Your task to perform on an android device: Open Android settings Image 0: 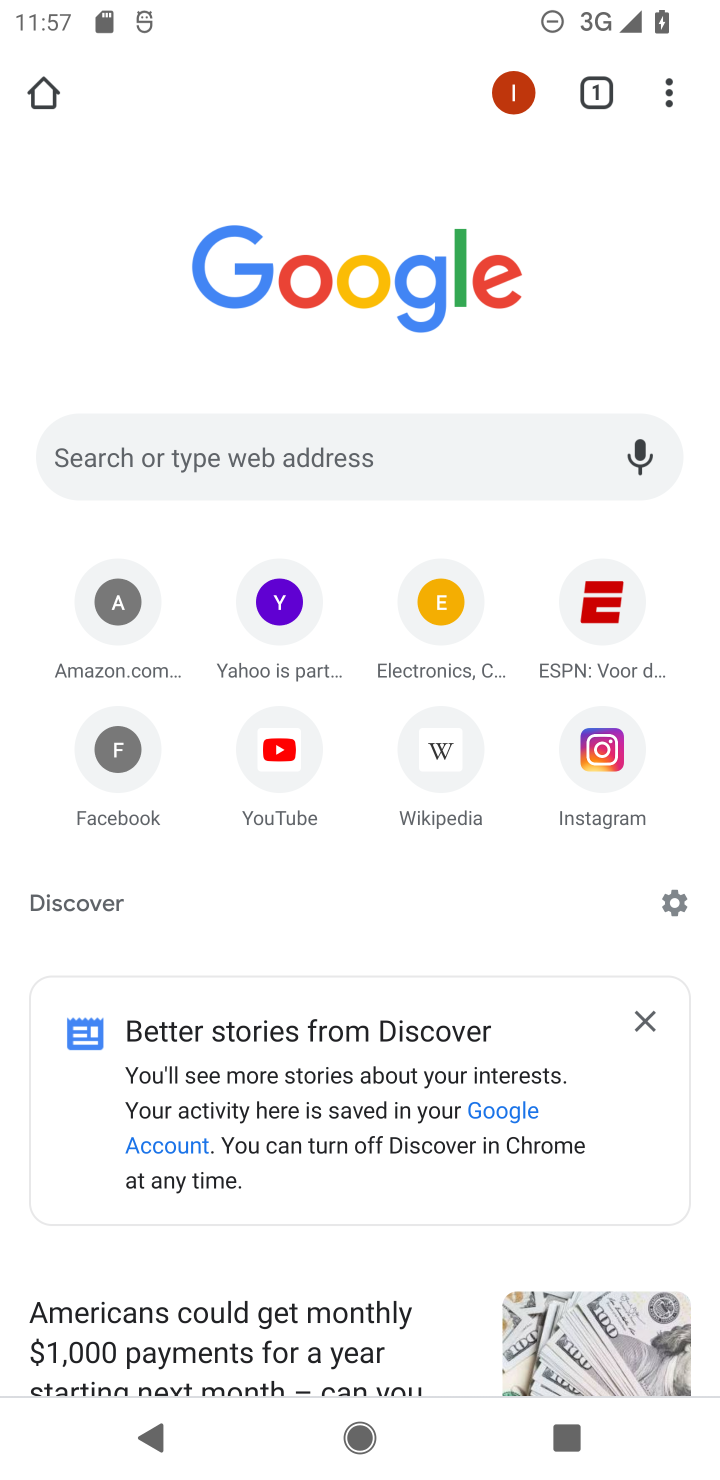
Step 0: press home button
Your task to perform on an android device: Open Android settings Image 1: 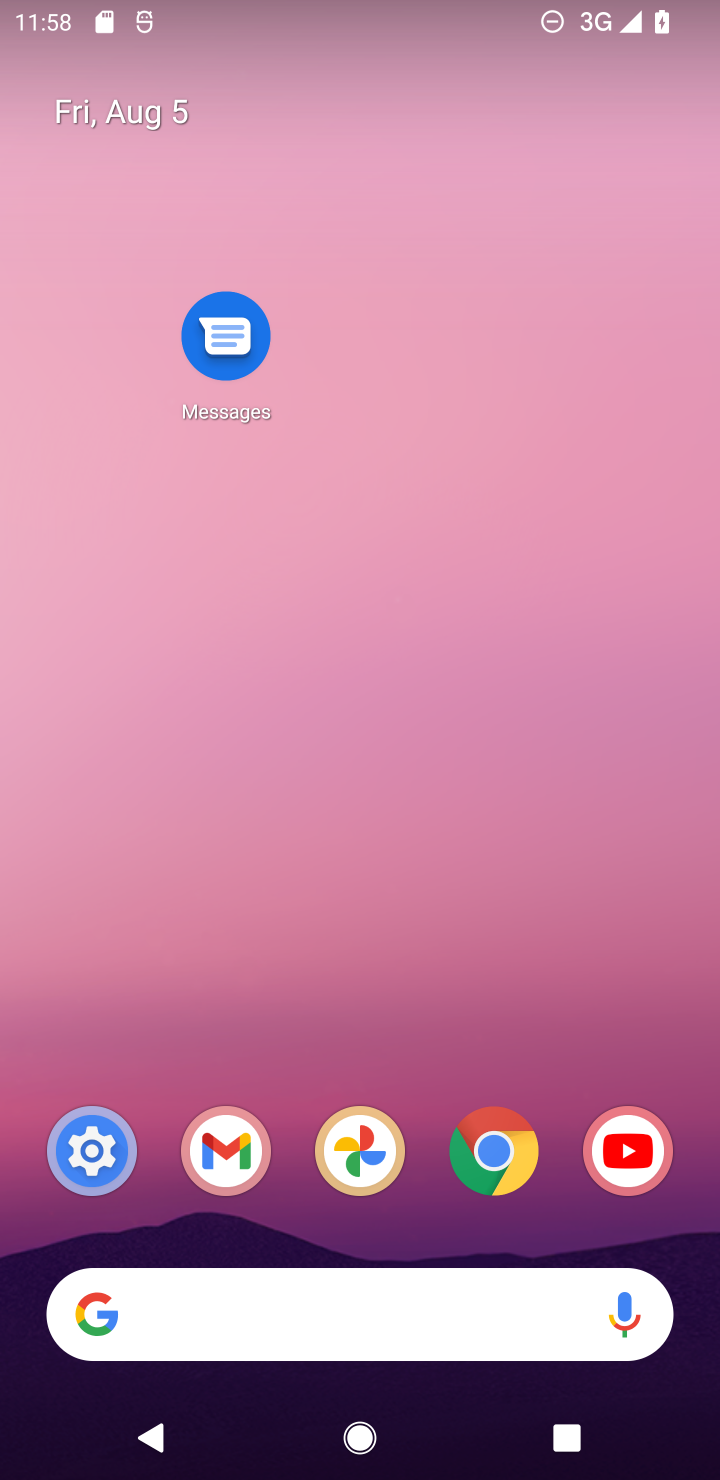
Step 1: click (83, 1160)
Your task to perform on an android device: Open Android settings Image 2: 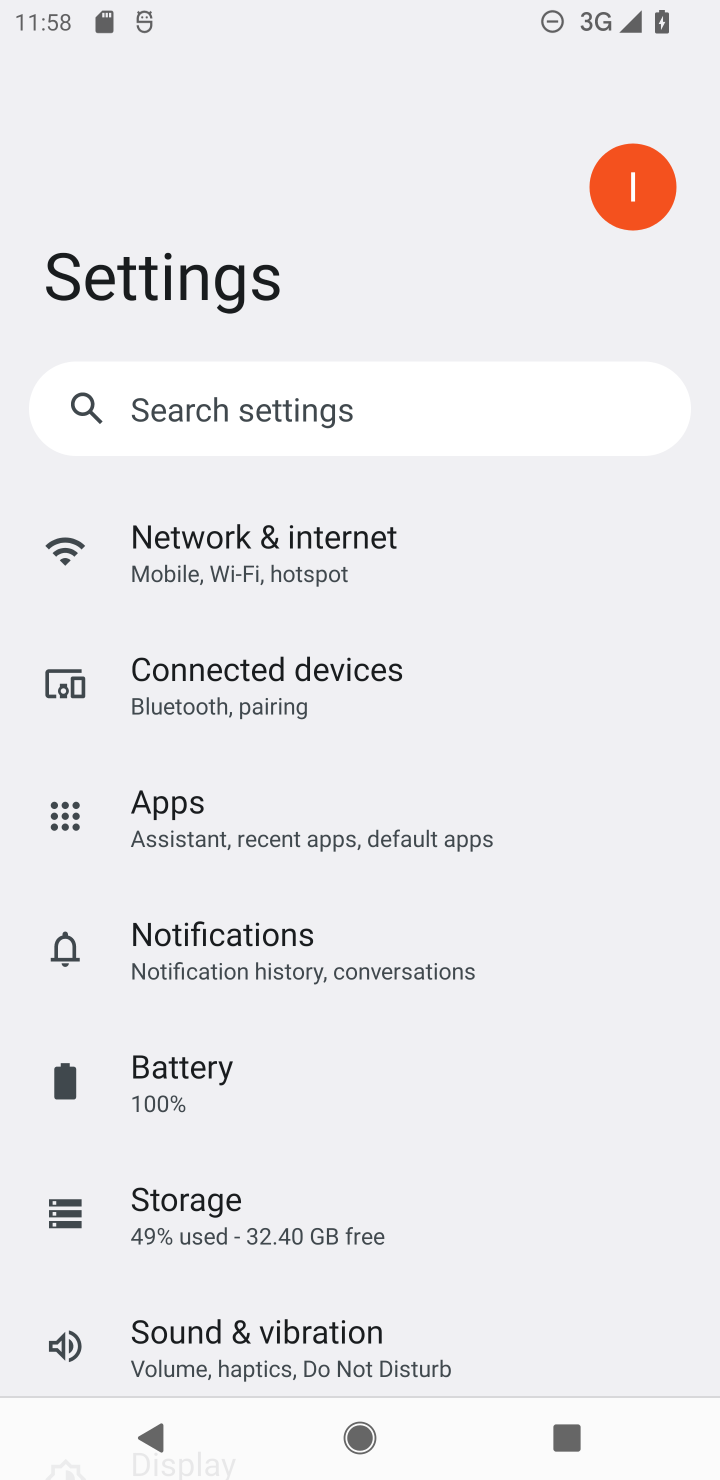
Step 2: drag from (283, 1258) to (306, 570)
Your task to perform on an android device: Open Android settings Image 3: 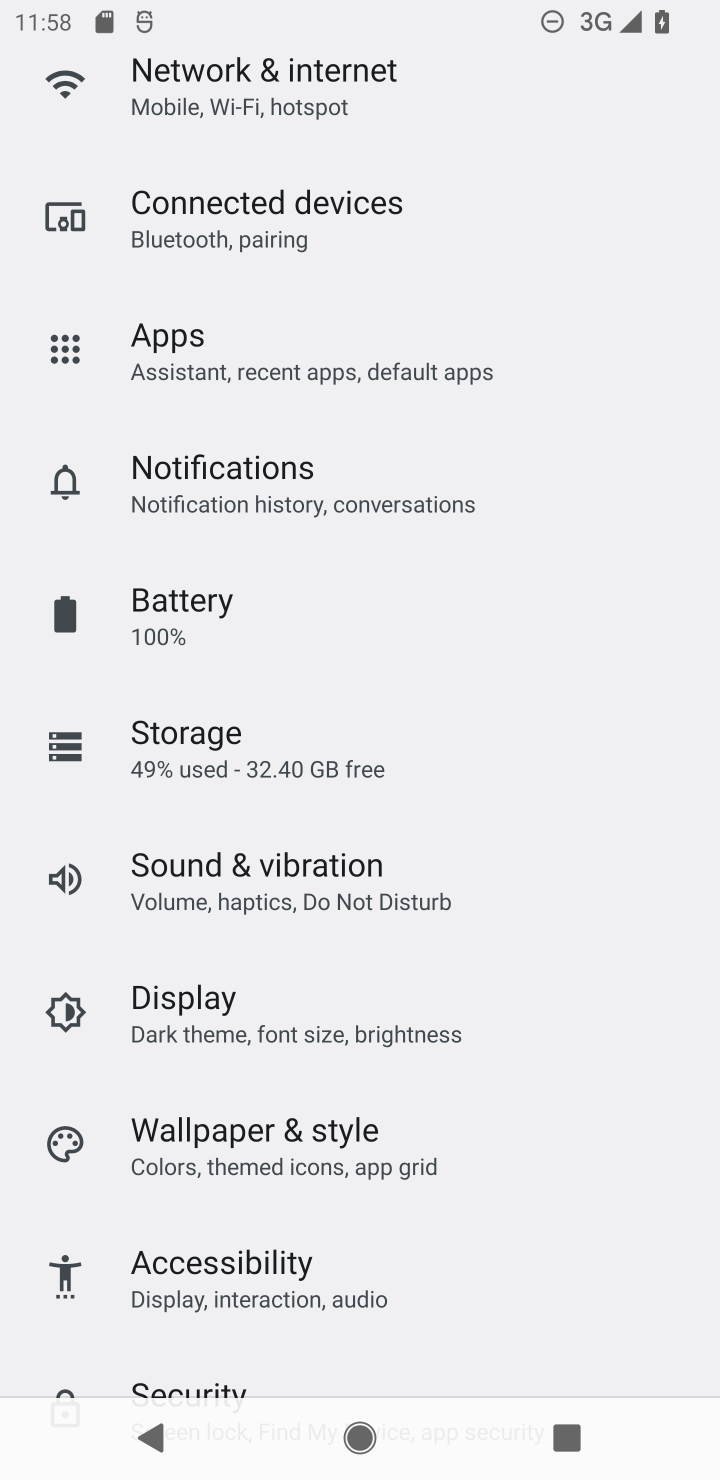
Step 3: drag from (312, 1251) to (320, 684)
Your task to perform on an android device: Open Android settings Image 4: 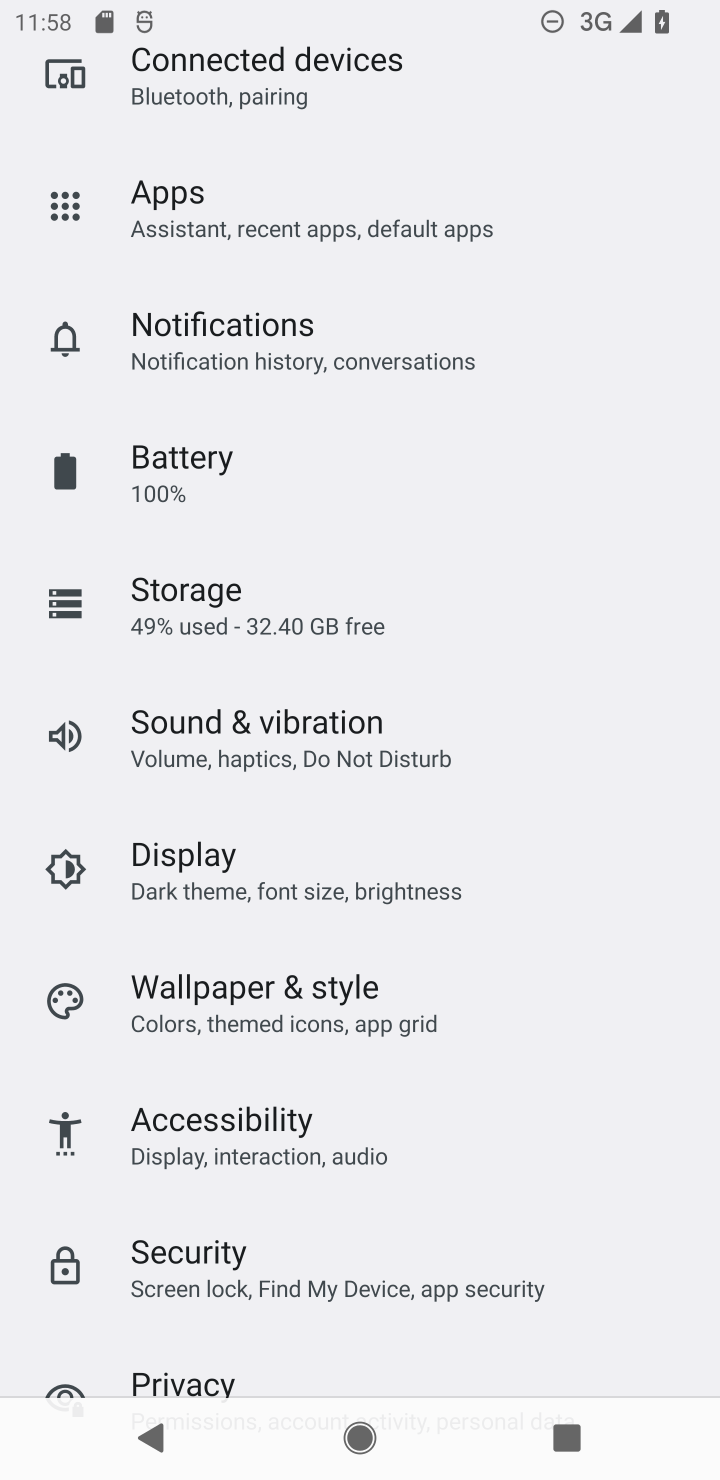
Step 4: drag from (222, 1197) to (259, 591)
Your task to perform on an android device: Open Android settings Image 5: 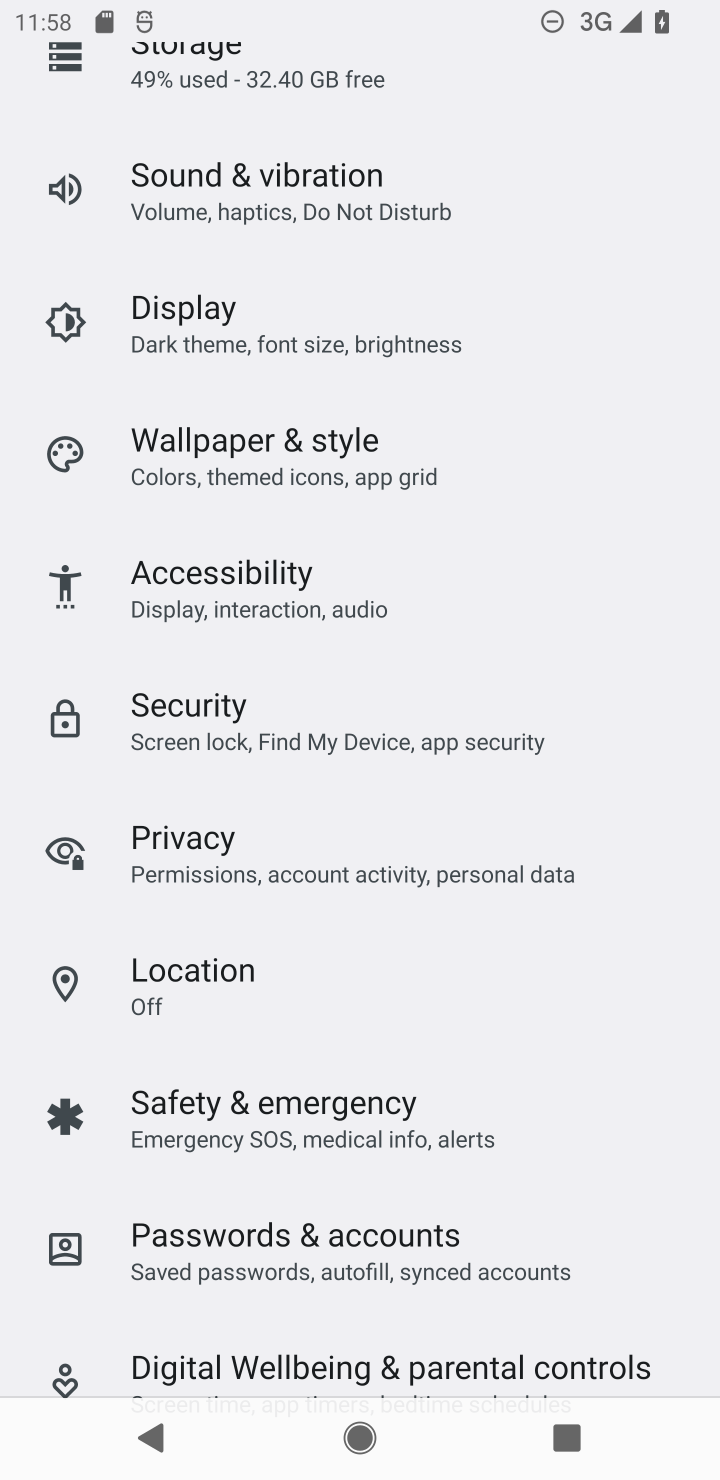
Step 5: click (296, 457)
Your task to perform on an android device: Open Android settings Image 6: 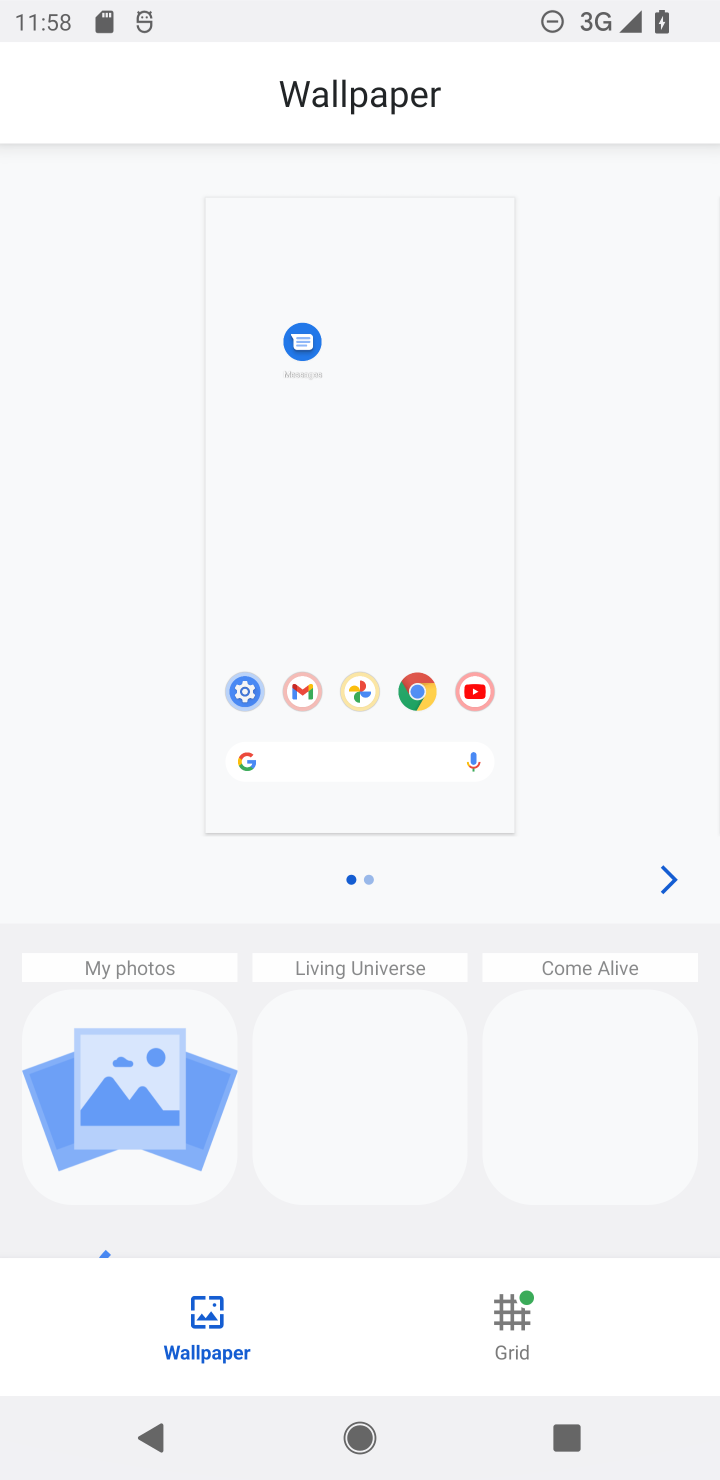
Step 6: press back button
Your task to perform on an android device: Open Android settings Image 7: 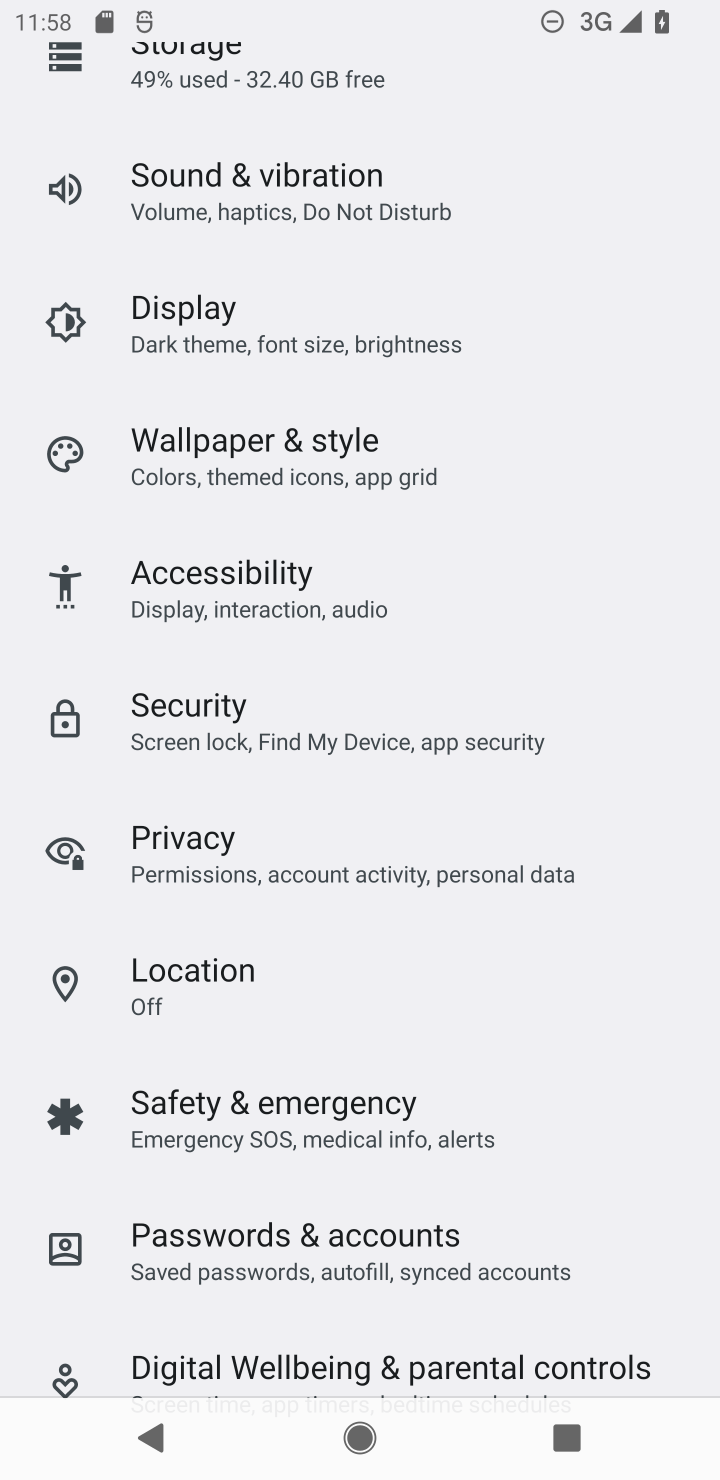
Step 7: click (326, 757)
Your task to perform on an android device: Open Android settings Image 8: 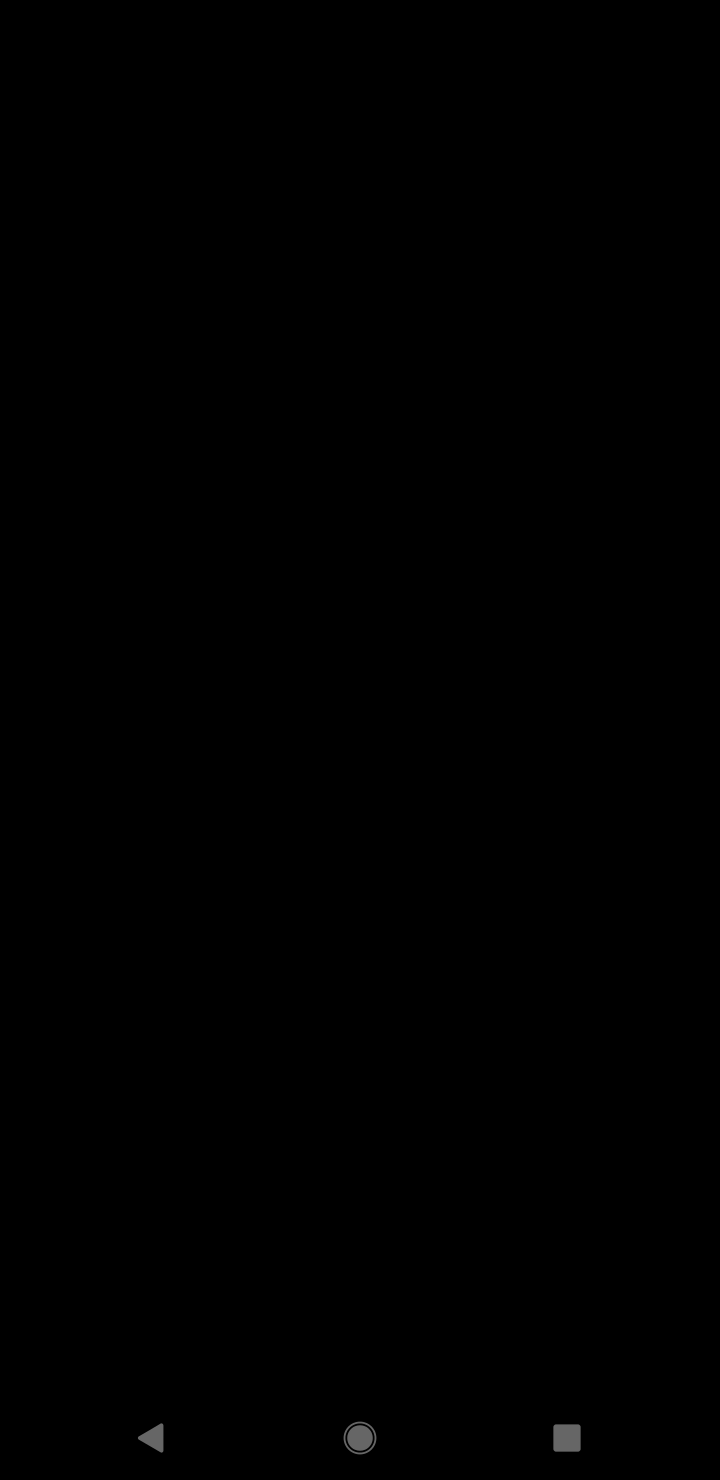
Step 8: press back button
Your task to perform on an android device: Open Android settings Image 9: 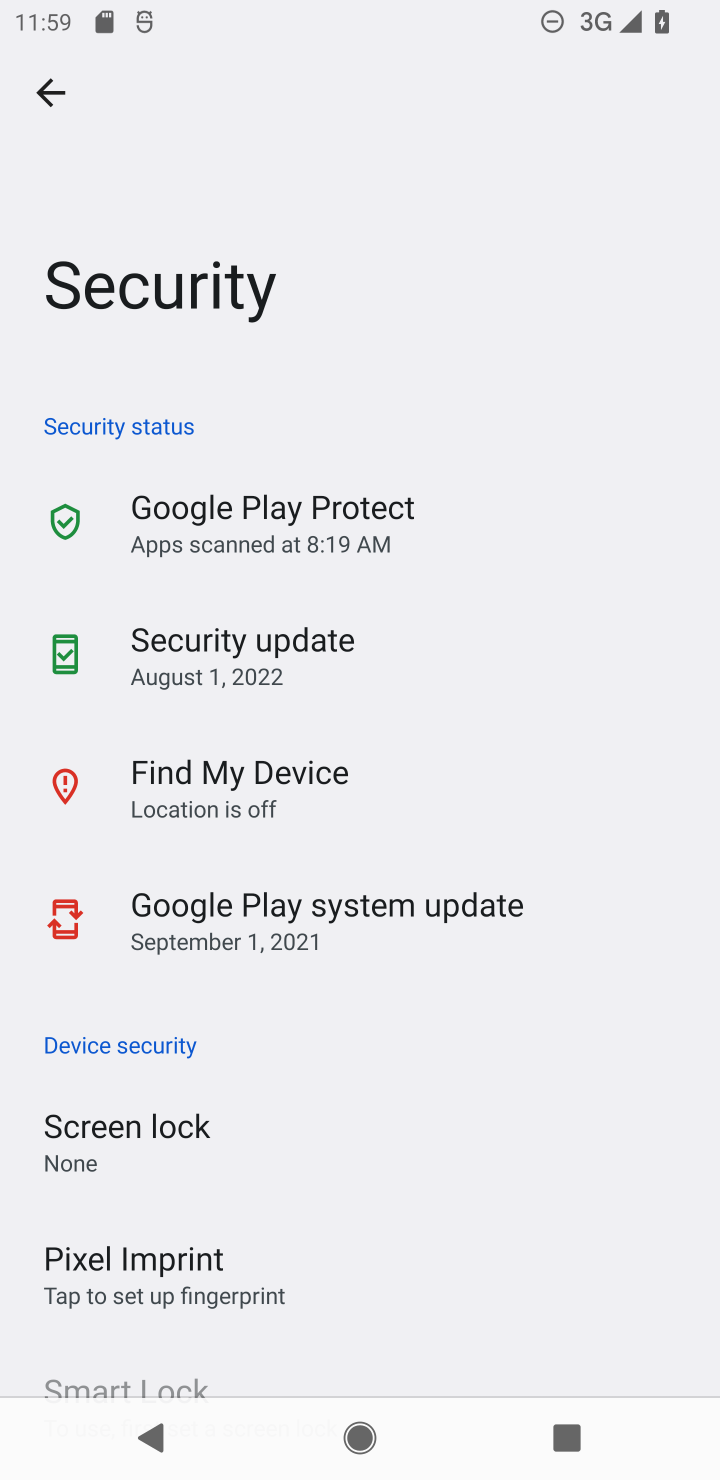
Step 9: press back button
Your task to perform on an android device: Open Android settings Image 10: 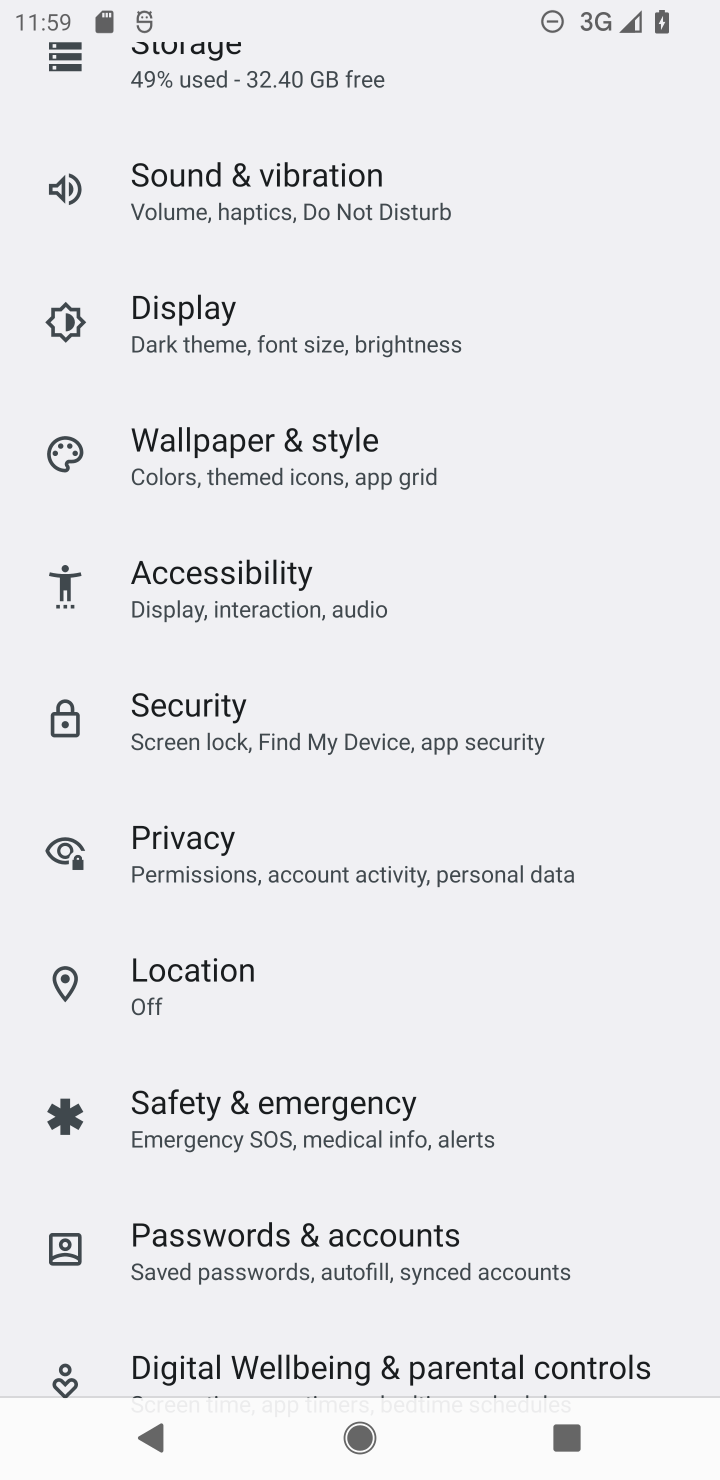
Step 10: drag from (355, 1006) to (338, 567)
Your task to perform on an android device: Open Android settings Image 11: 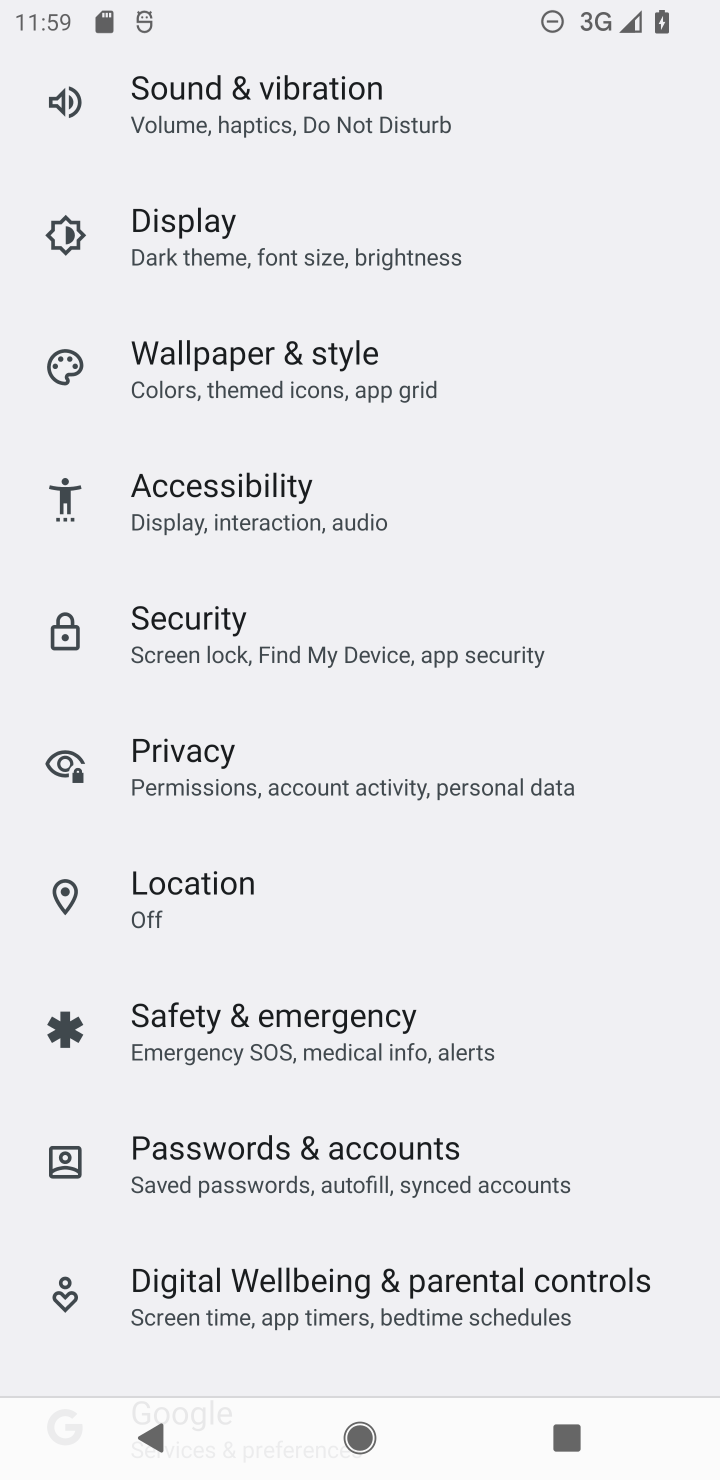
Step 11: drag from (330, 1160) to (341, 549)
Your task to perform on an android device: Open Android settings Image 12: 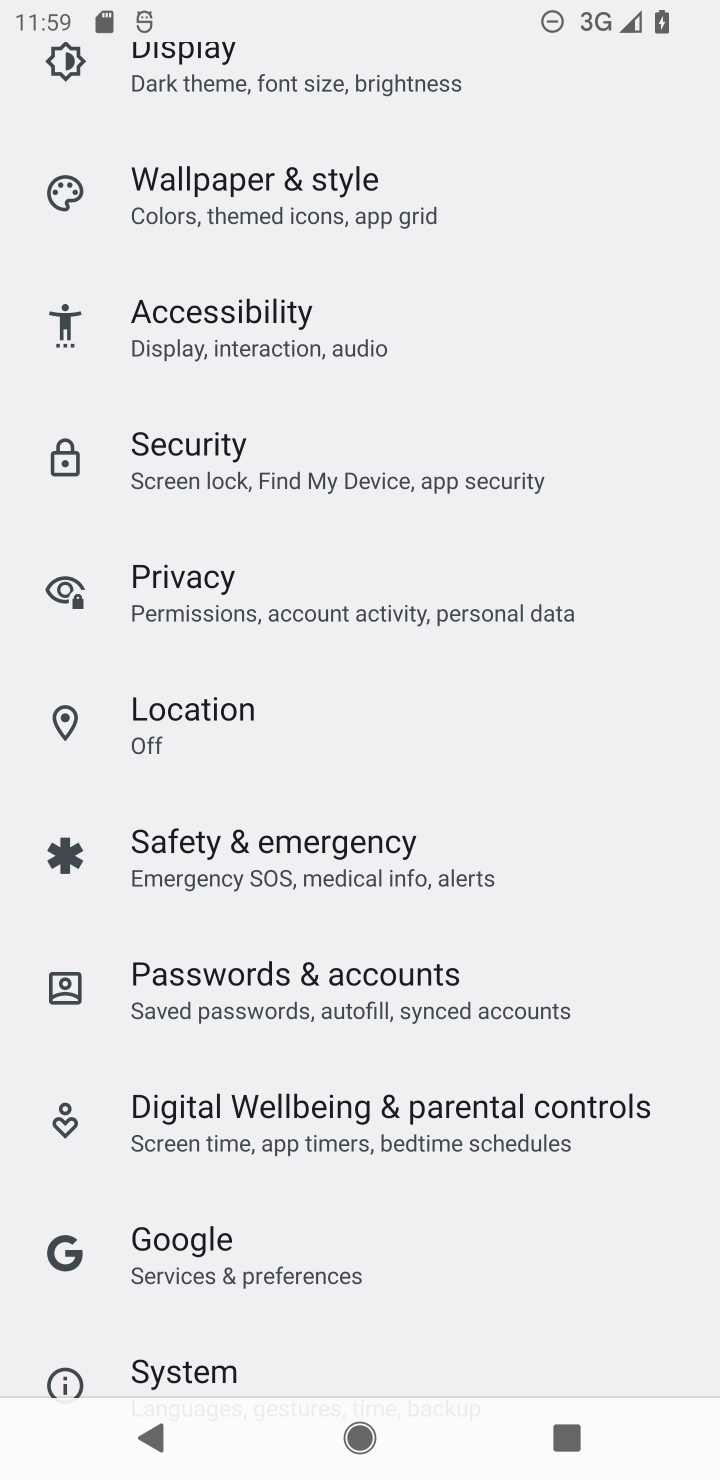
Step 12: drag from (312, 864) to (321, 637)
Your task to perform on an android device: Open Android settings Image 13: 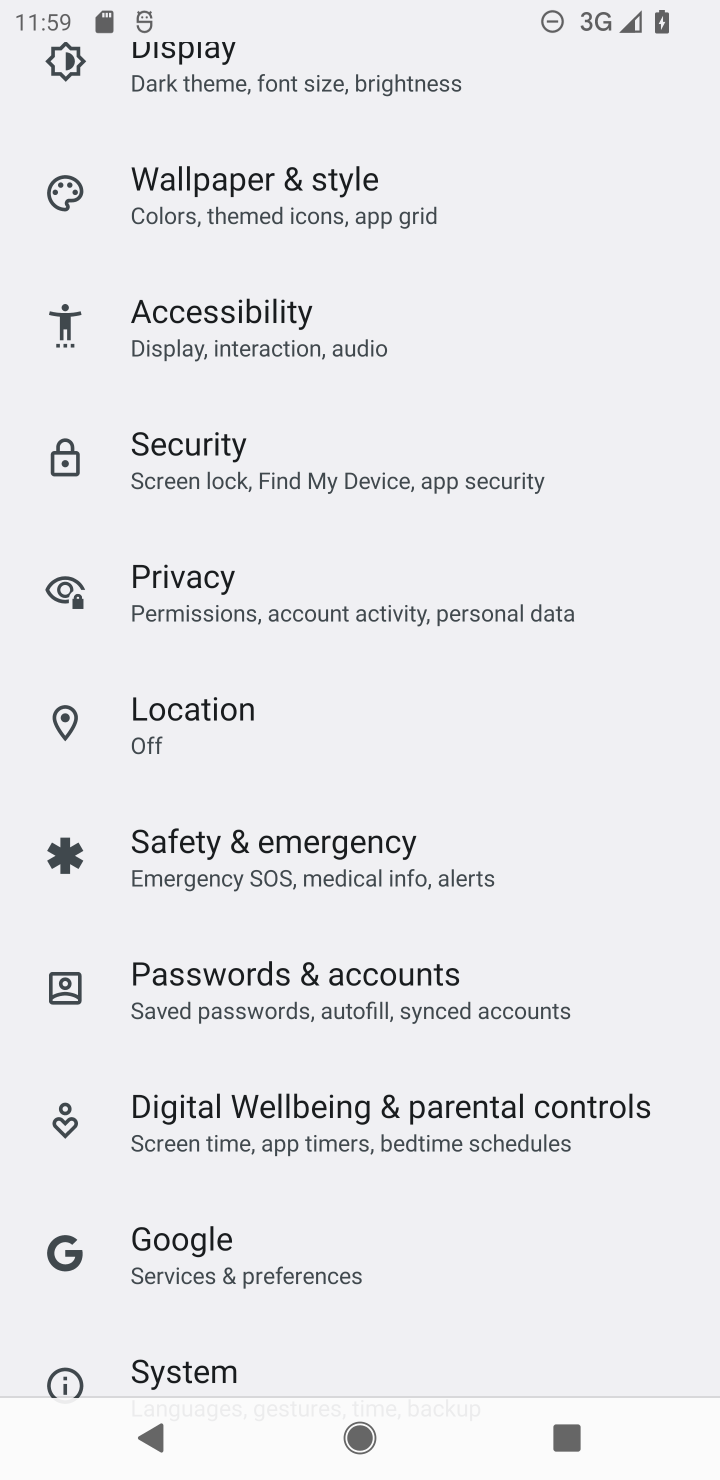
Step 13: drag from (349, 1082) to (424, 577)
Your task to perform on an android device: Open Android settings Image 14: 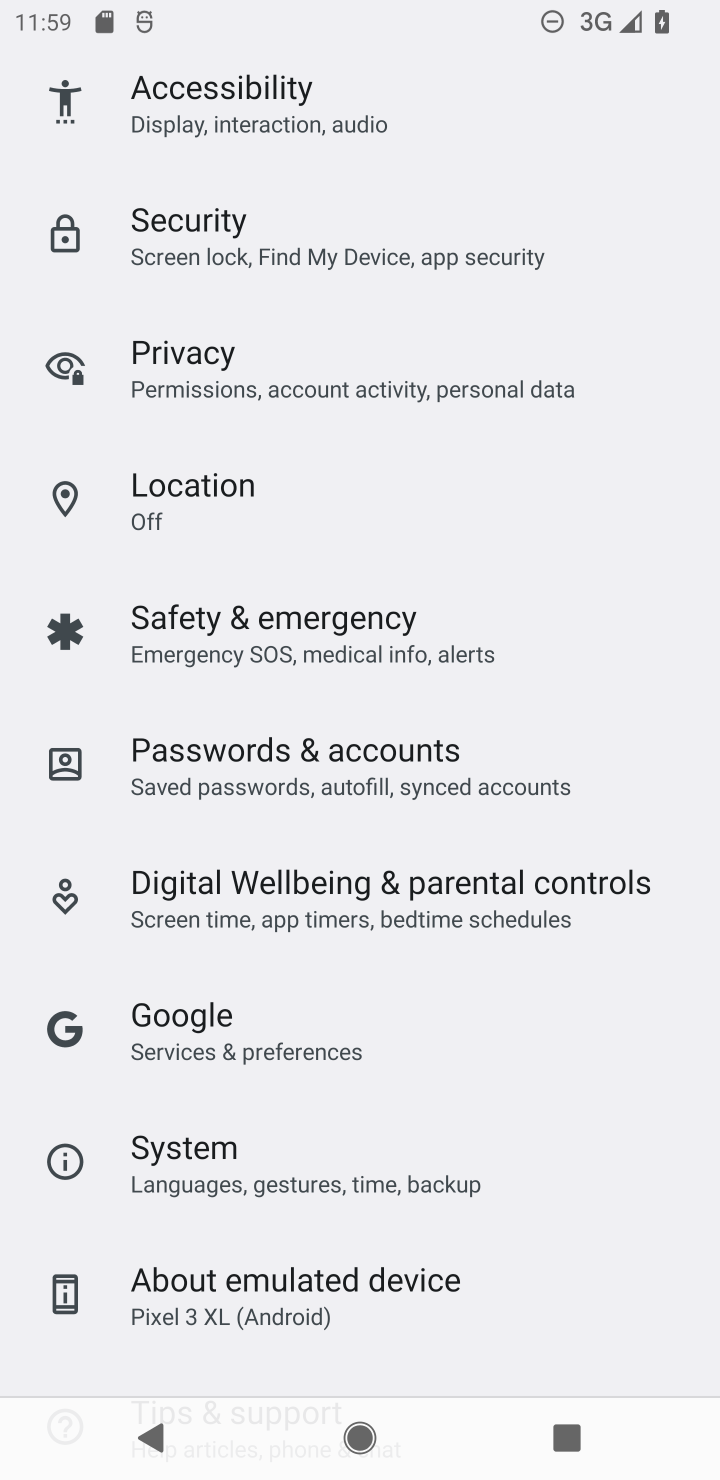
Step 14: click (254, 1298)
Your task to perform on an android device: Open Android settings Image 15: 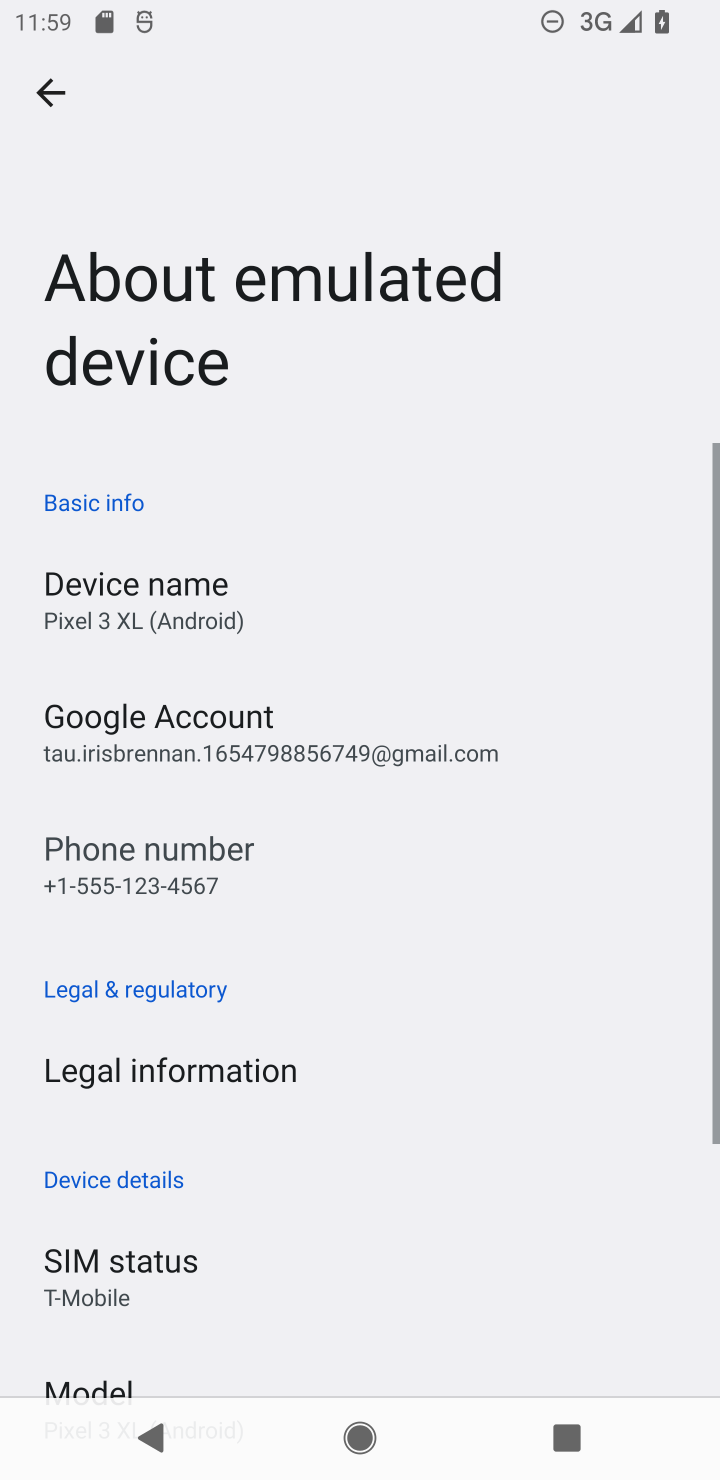
Step 15: drag from (210, 1239) to (250, 873)
Your task to perform on an android device: Open Android settings Image 16: 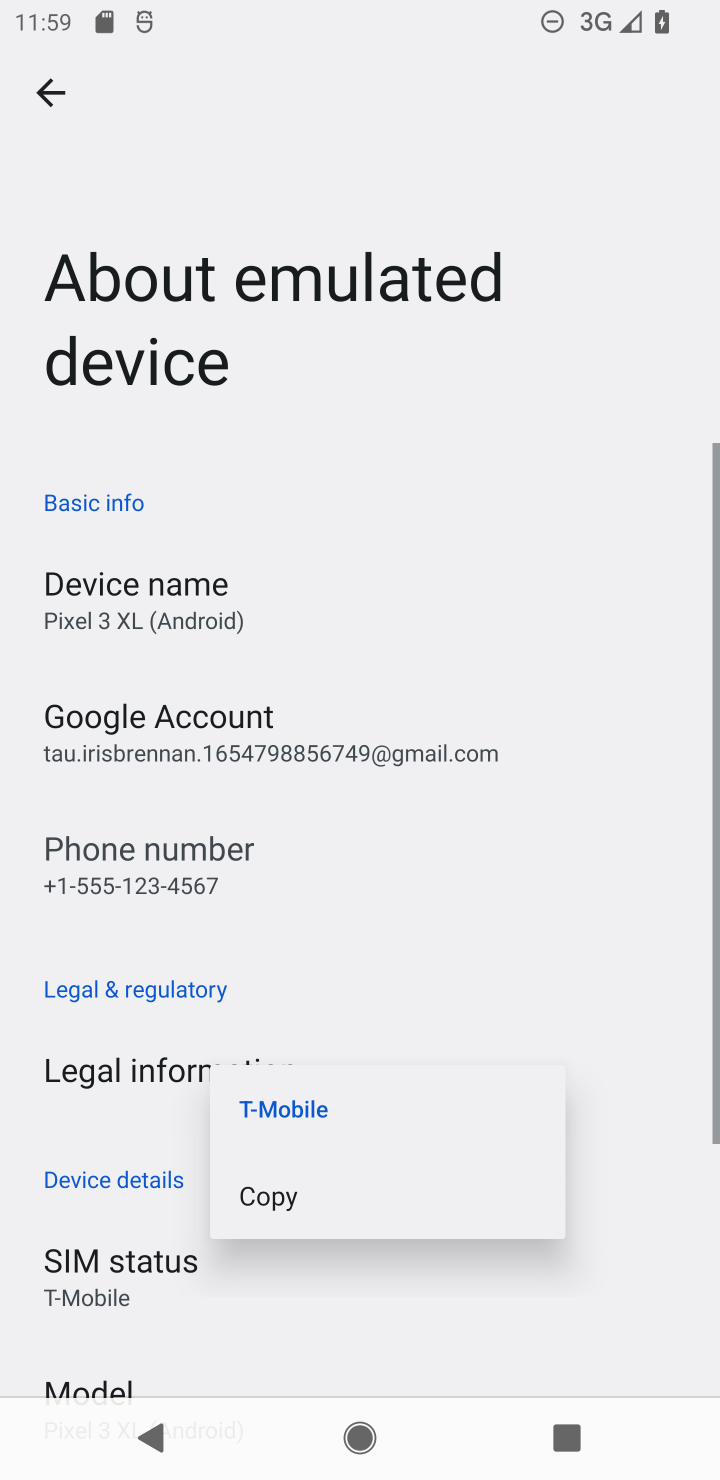
Step 16: click (269, 519)
Your task to perform on an android device: Open Android settings Image 17: 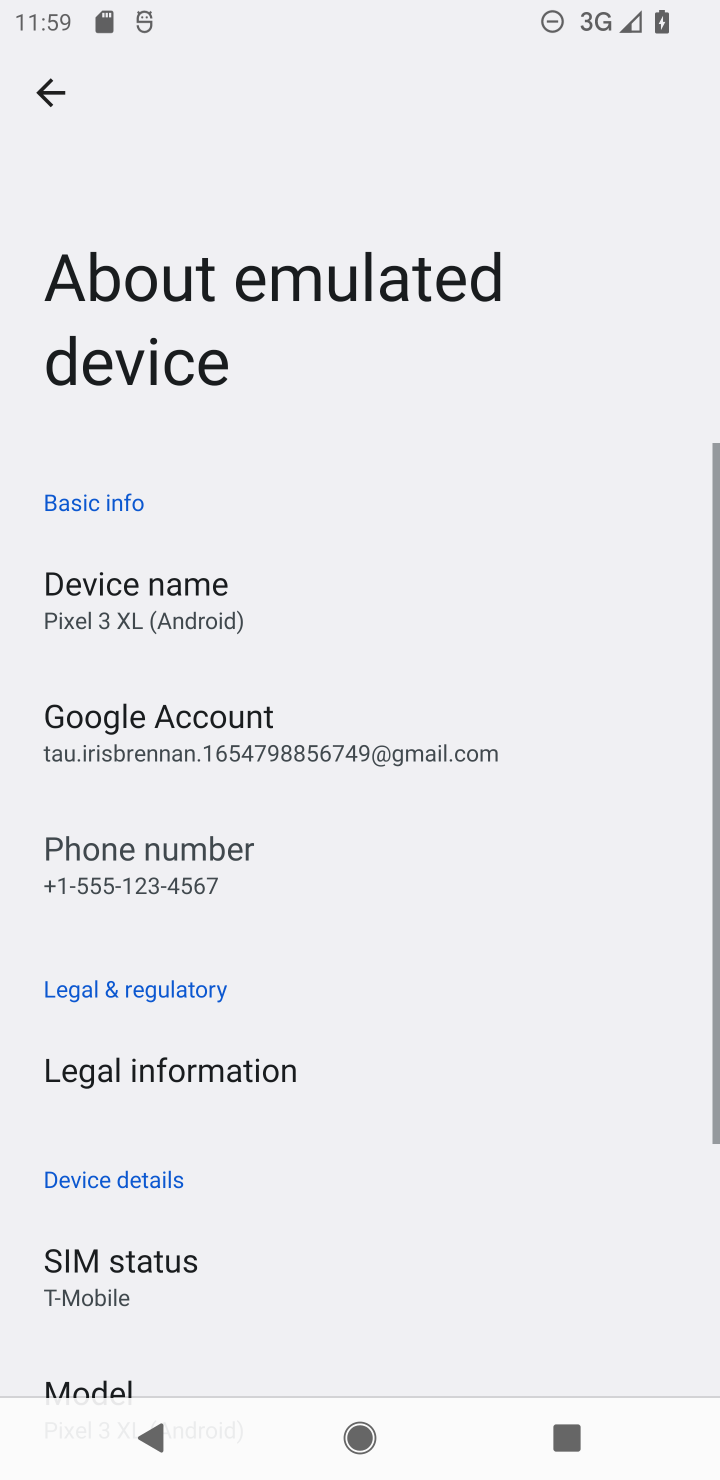
Step 17: drag from (176, 1235) to (428, 169)
Your task to perform on an android device: Open Android settings Image 18: 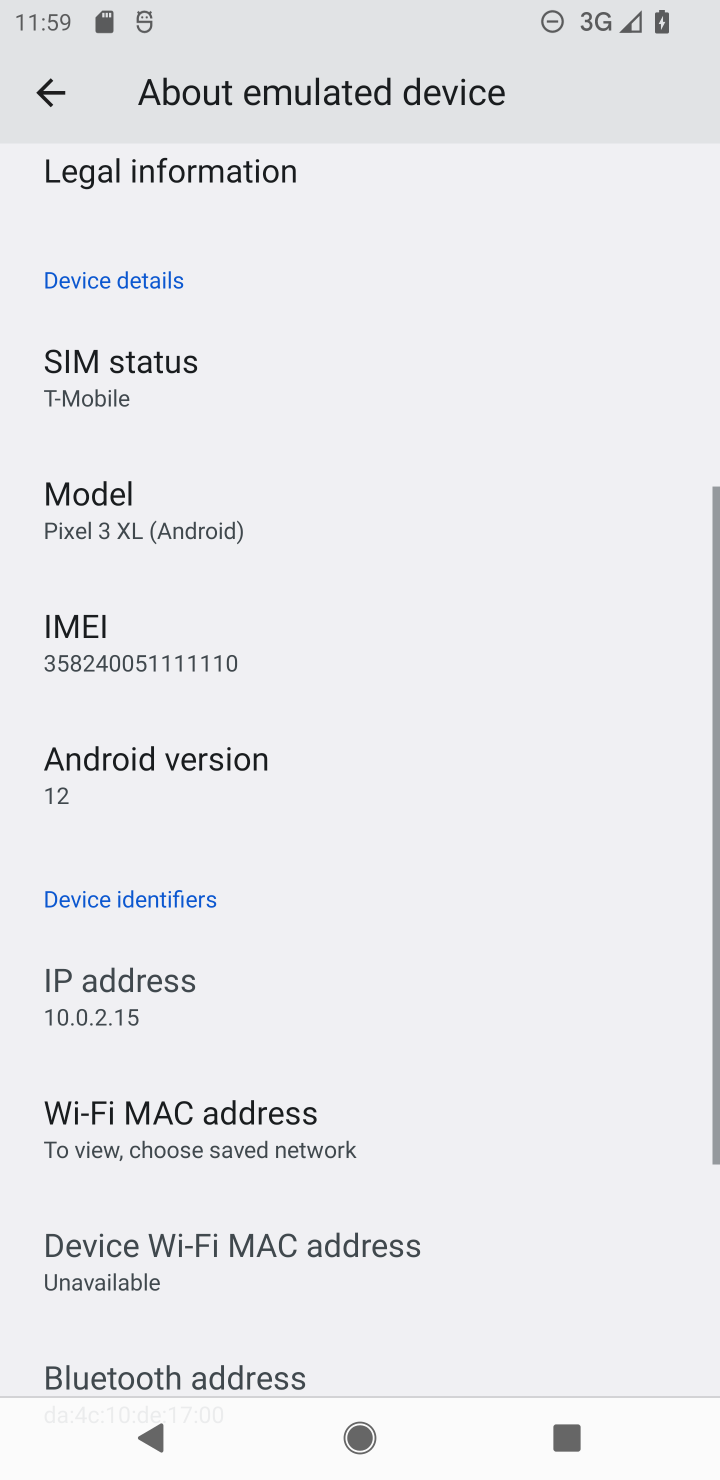
Step 18: click (174, 820)
Your task to perform on an android device: Open Android settings Image 19: 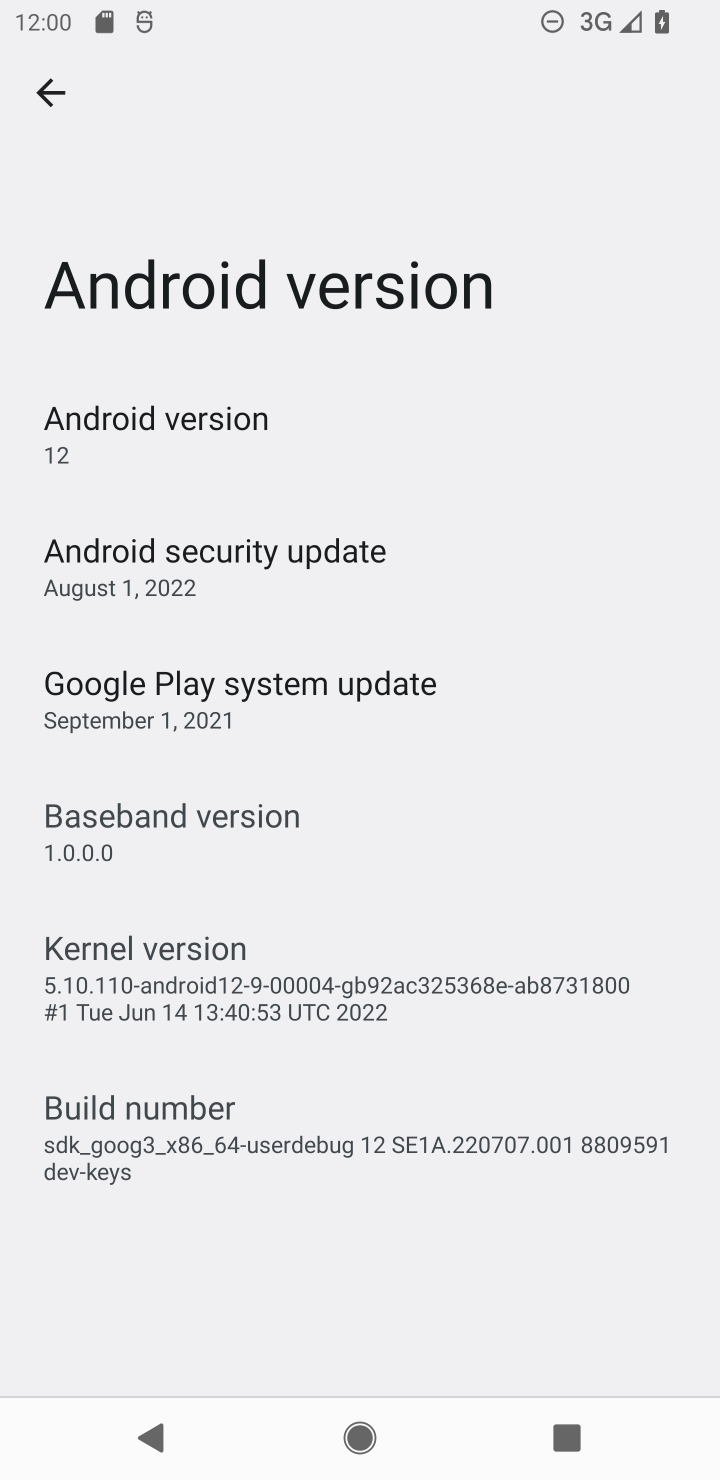
Step 19: task complete